Your task to perform on an android device: check the backup settings in the google photos Image 0: 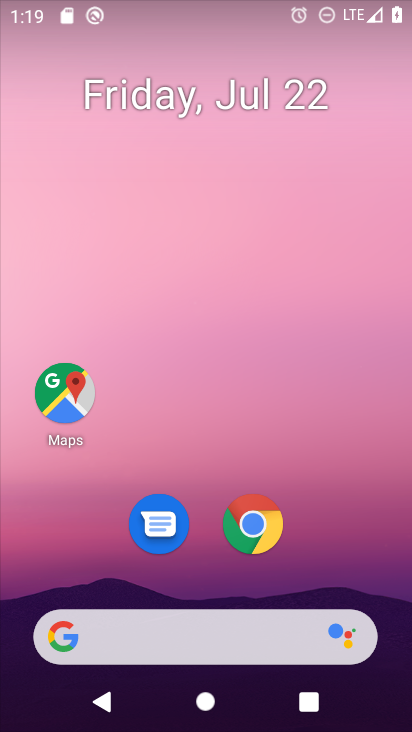
Step 0: drag from (341, 531) to (327, 0)
Your task to perform on an android device: check the backup settings in the google photos Image 1: 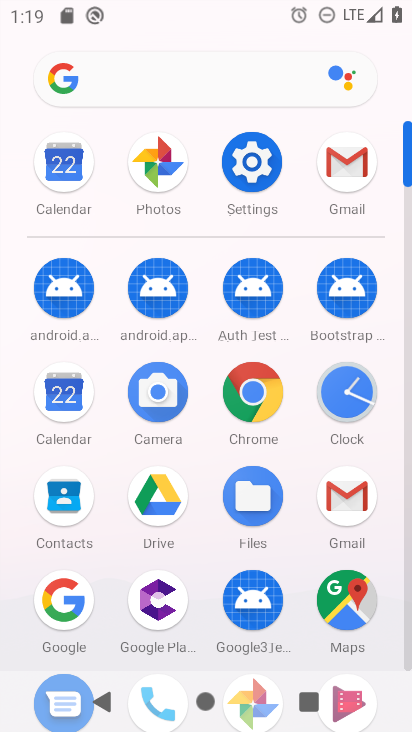
Step 1: click (163, 156)
Your task to perform on an android device: check the backup settings in the google photos Image 2: 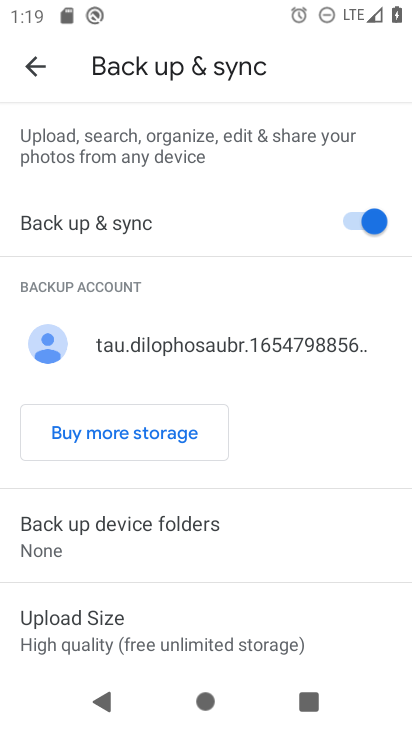
Step 2: task complete